Your task to perform on an android device: turn off priority inbox in the gmail app Image 0: 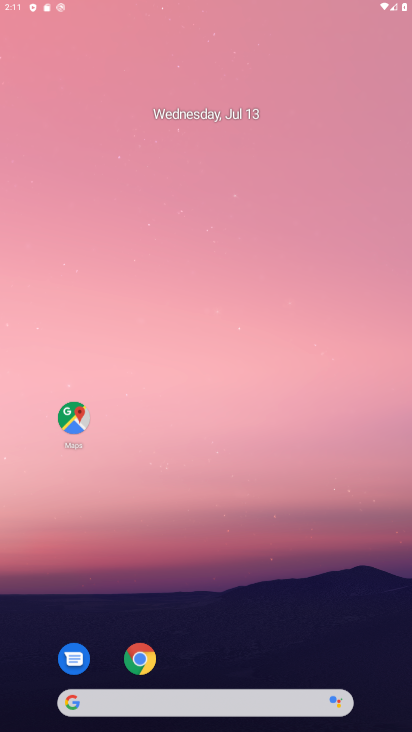
Step 0: press home button
Your task to perform on an android device: turn off priority inbox in the gmail app Image 1: 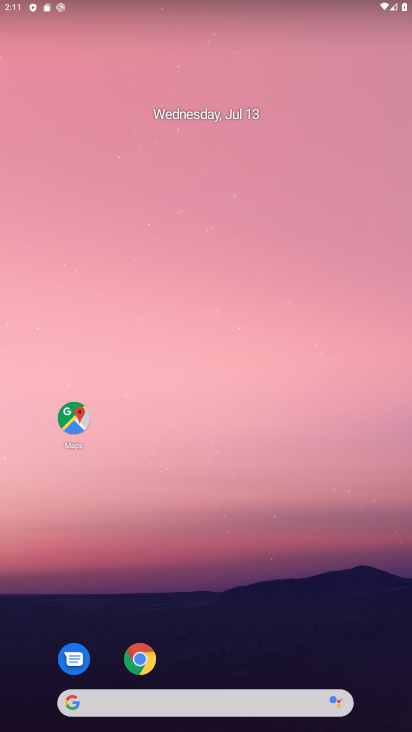
Step 1: drag from (223, 652) to (280, 116)
Your task to perform on an android device: turn off priority inbox in the gmail app Image 2: 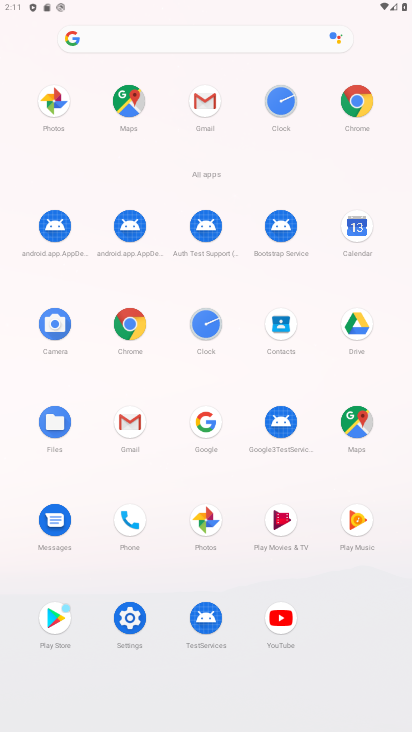
Step 2: click (197, 98)
Your task to perform on an android device: turn off priority inbox in the gmail app Image 3: 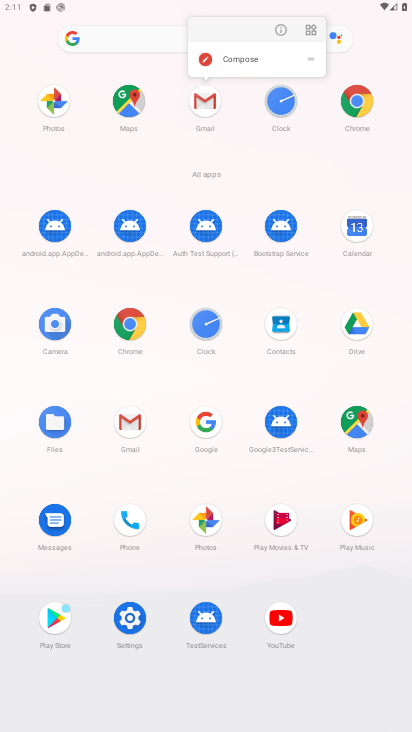
Step 3: click (202, 94)
Your task to perform on an android device: turn off priority inbox in the gmail app Image 4: 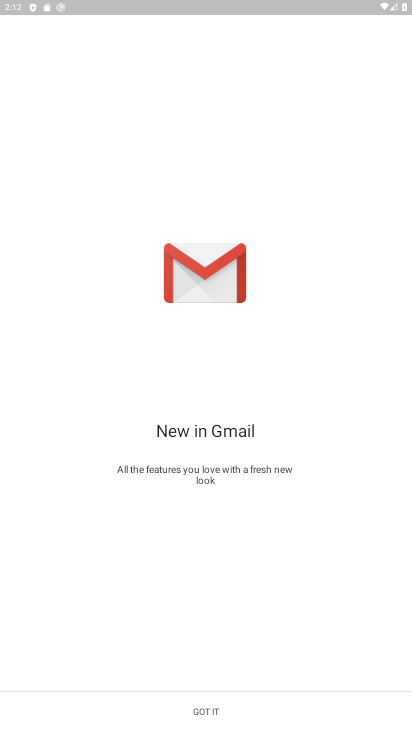
Step 4: click (202, 713)
Your task to perform on an android device: turn off priority inbox in the gmail app Image 5: 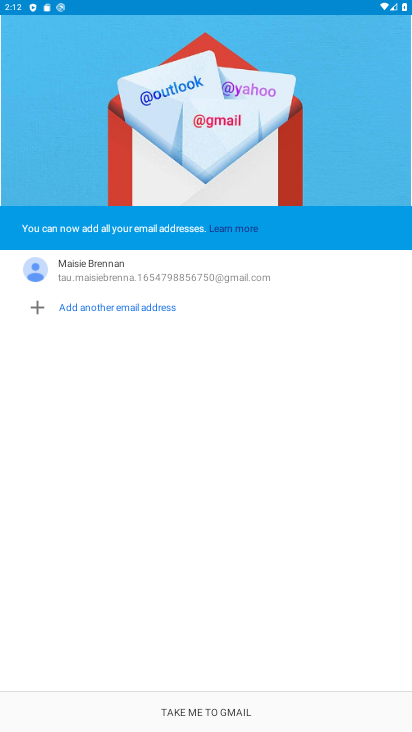
Step 5: click (218, 712)
Your task to perform on an android device: turn off priority inbox in the gmail app Image 6: 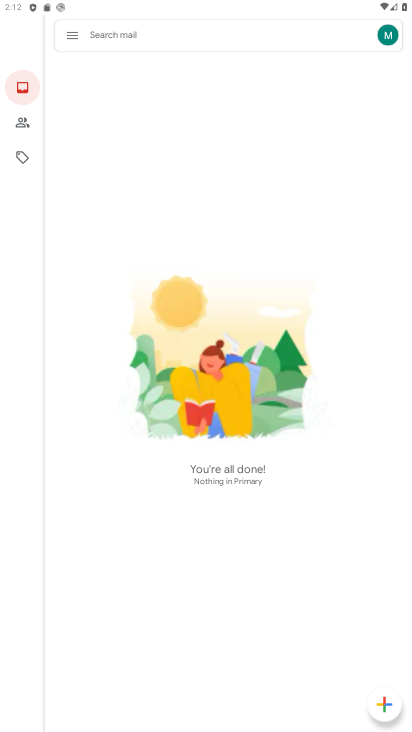
Step 6: click (65, 34)
Your task to perform on an android device: turn off priority inbox in the gmail app Image 7: 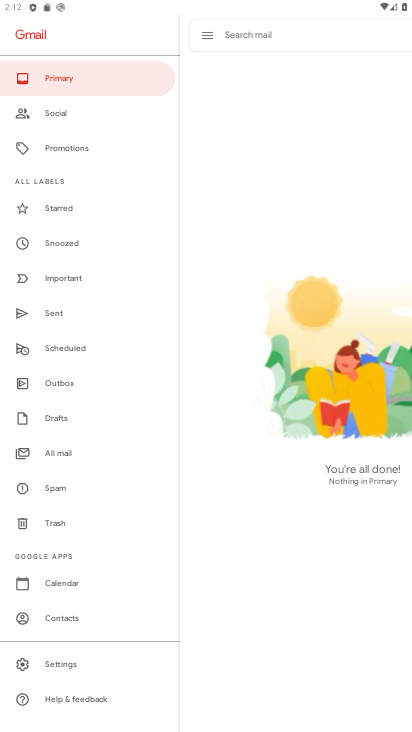
Step 7: click (85, 665)
Your task to perform on an android device: turn off priority inbox in the gmail app Image 8: 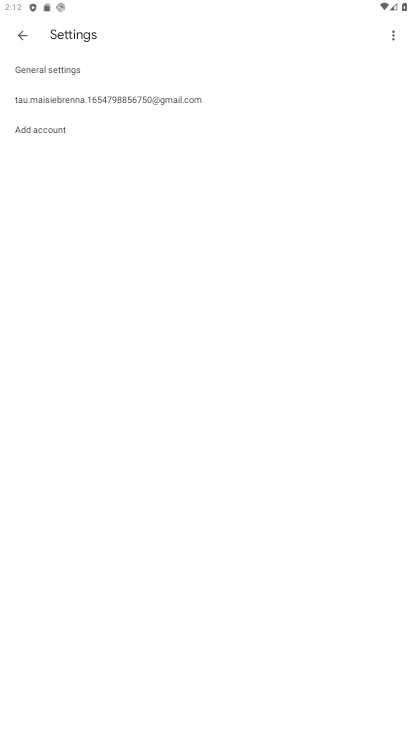
Step 8: click (130, 97)
Your task to perform on an android device: turn off priority inbox in the gmail app Image 9: 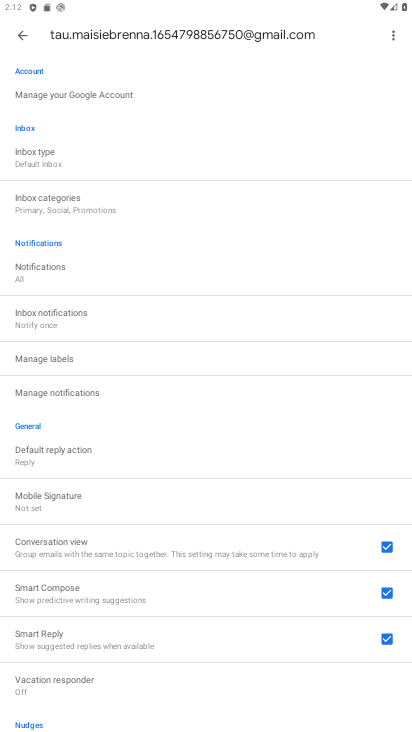
Step 9: click (55, 155)
Your task to perform on an android device: turn off priority inbox in the gmail app Image 10: 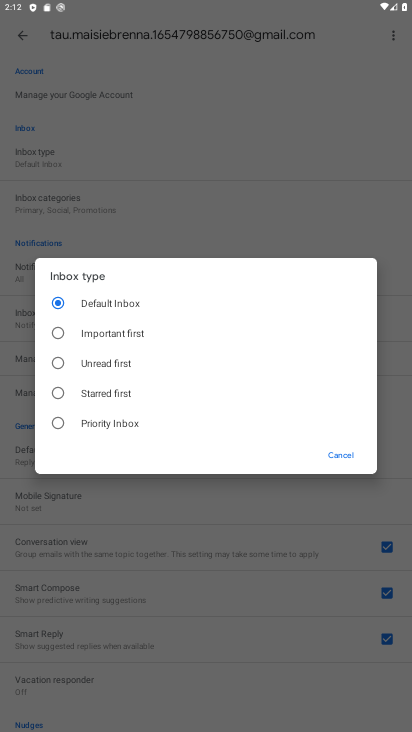
Step 10: click (60, 391)
Your task to perform on an android device: turn off priority inbox in the gmail app Image 11: 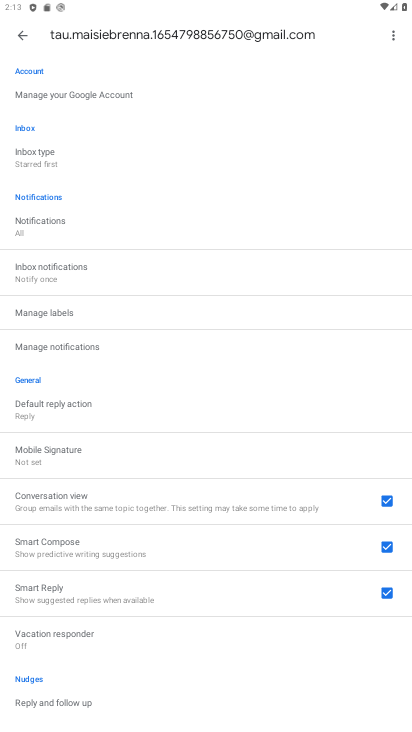
Step 11: task complete